Your task to perform on an android device: open app "Reddit" (install if not already installed) Image 0: 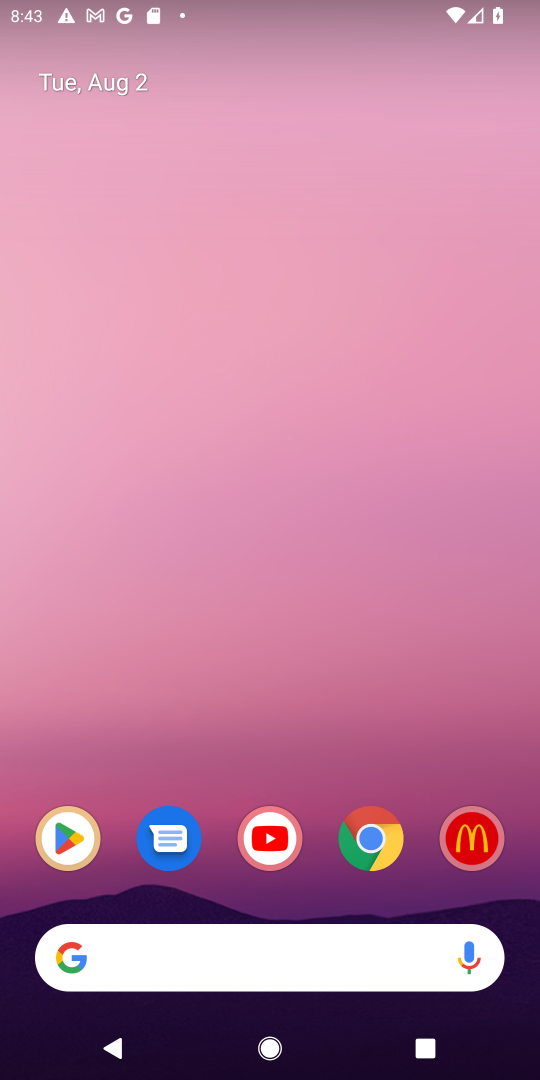
Step 0: press home button
Your task to perform on an android device: open app "Reddit" (install if not already installed) Image 1: 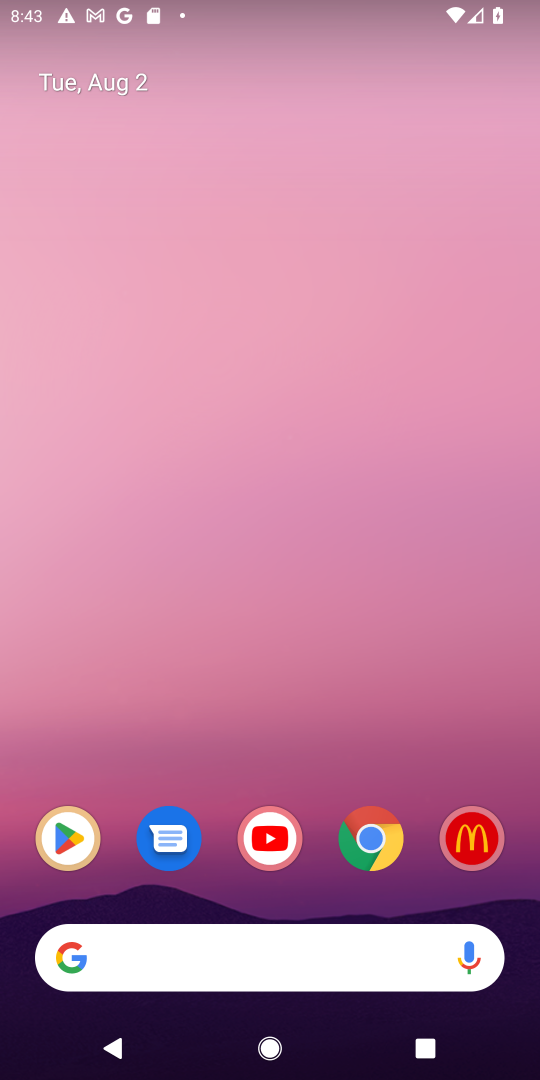
Step 1: drag from (302, 734) to (290, 32)
Your task to perform on an android device: open app "Reddit" (install if not already installed) Image 2: 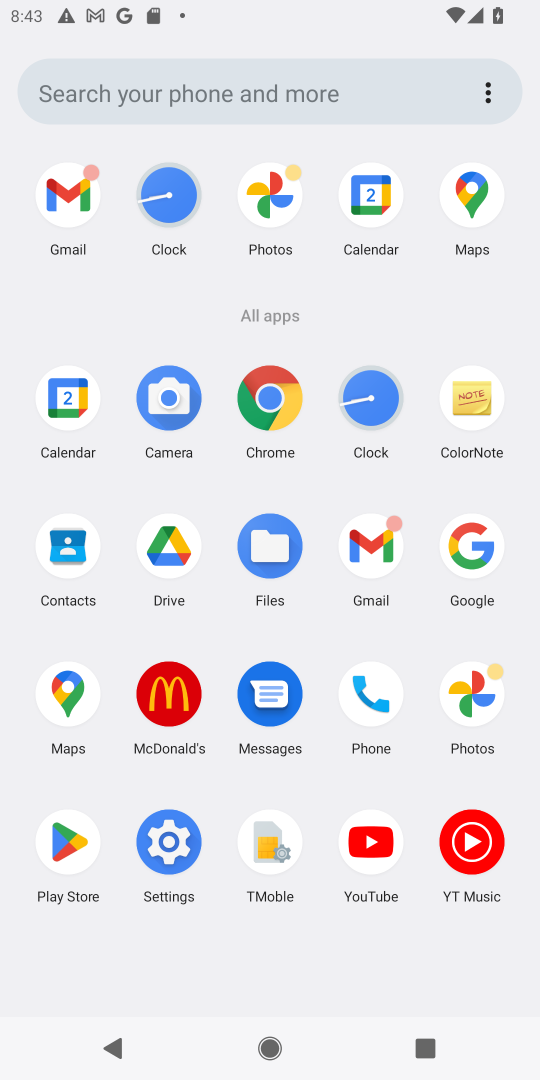
Step 2: click (67, 850)
Your task to perform on an android device: open app "Reddit" (install if not already installed) Image 3: 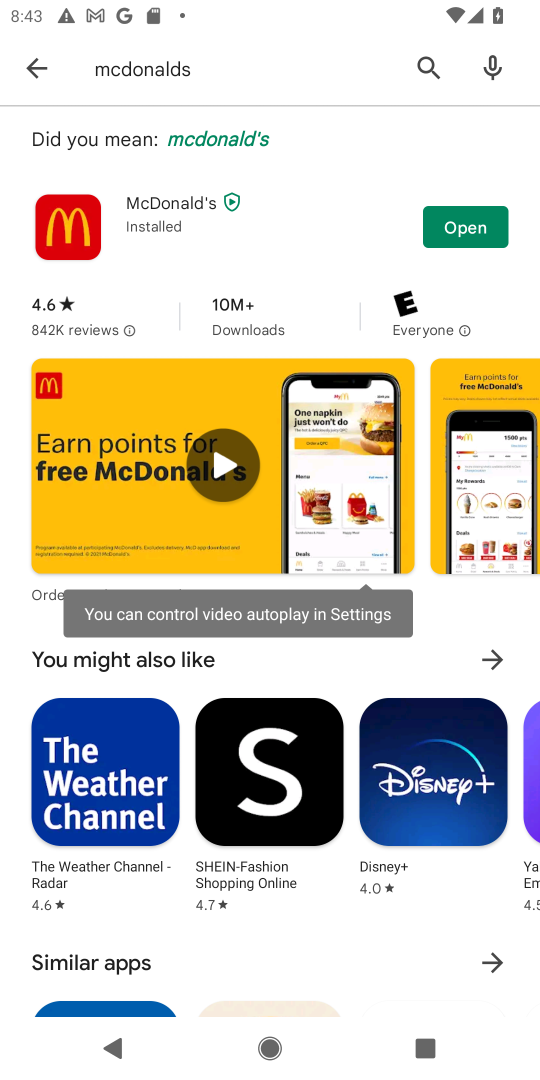
Step 3: click (423, 62)
Your task to perform on an android device: open app "Reddit" (install if not already installed) Image 4: 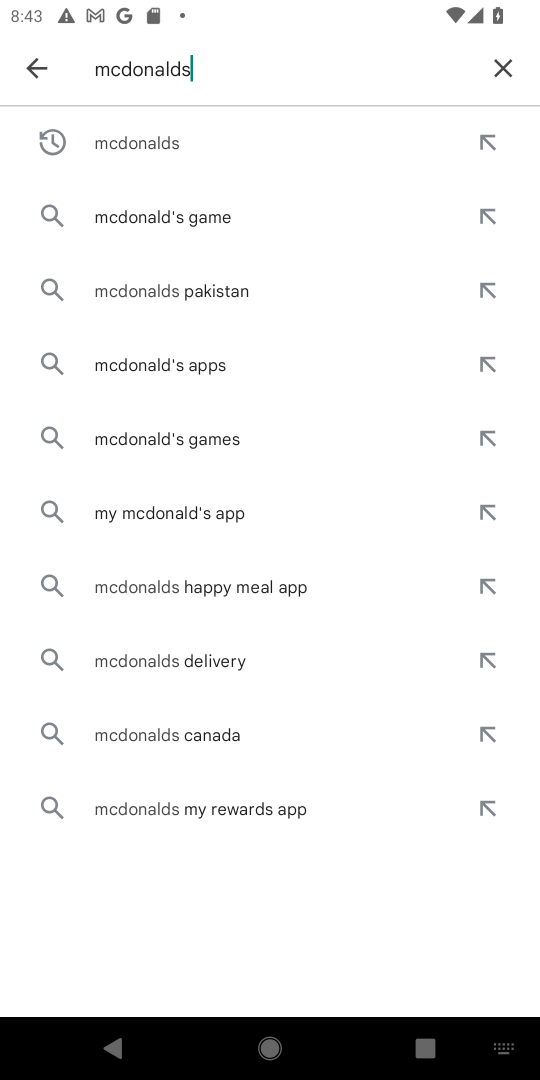
Step 4: click (512, 70)
Your task to perform on an android device: open app "Reddit" (install if not already installed) Image 5: 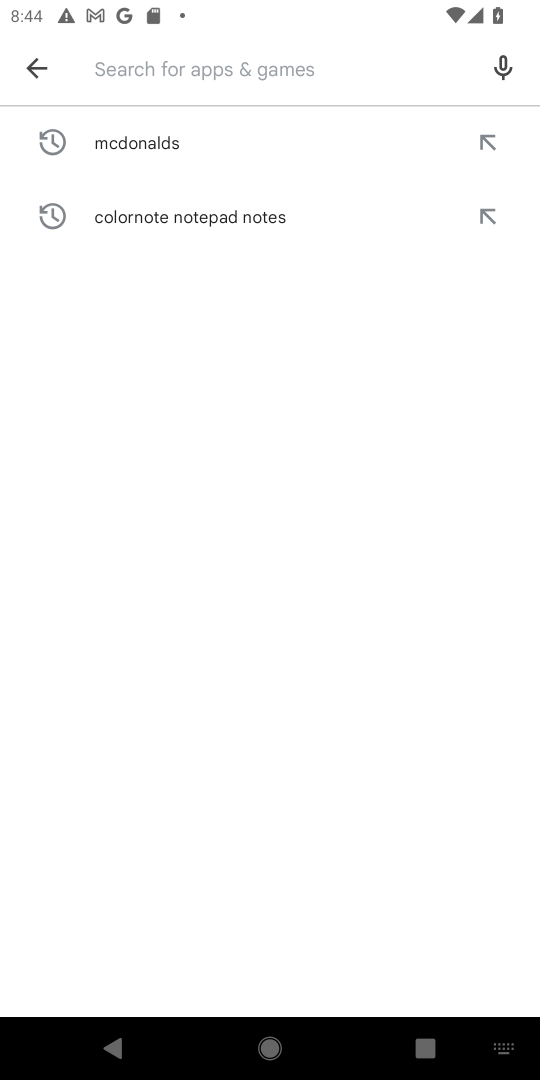
Step 5: type "reddit"
Your task to perform on an android device: open app "Reddit" (install if not already installed) Image 6: 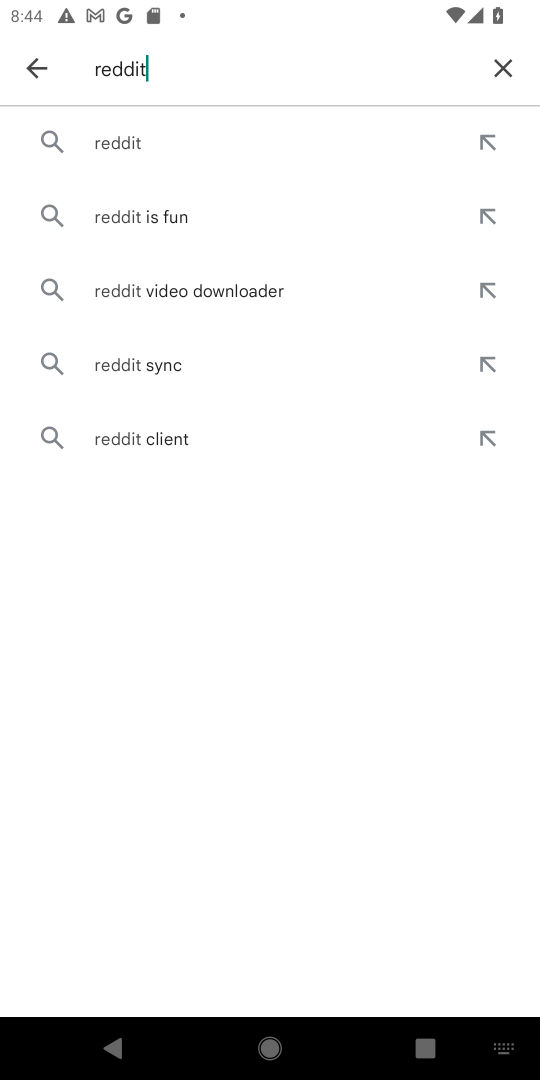
Step 6: click (211, 145)
Your task to perform on an android device: open app "Reddit" (install if not already installed) Image 7: 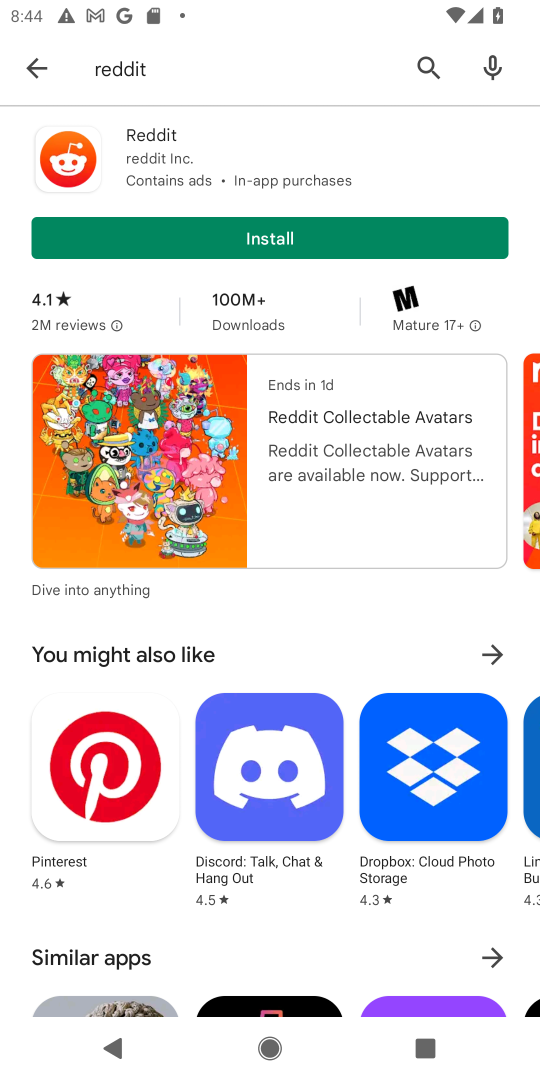
Step 7: click (272, 246)
Your task to perform on an android device: open app "Reddit" (install if not already installed) Image 8: 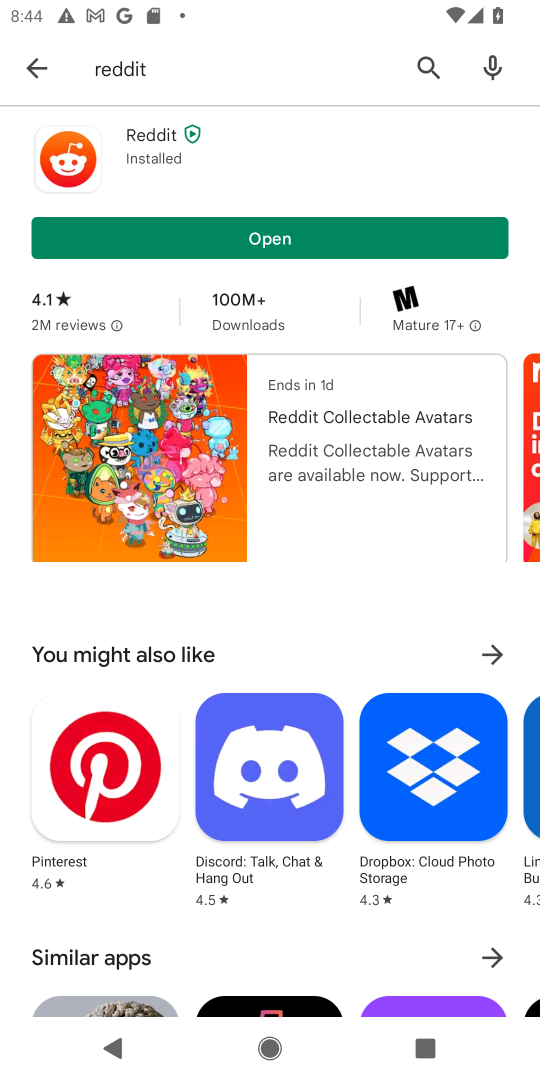
Step 8: click (470, 238)
Your task to perform on an android device: open app "Reddit" (install if not already installed) Image 9: 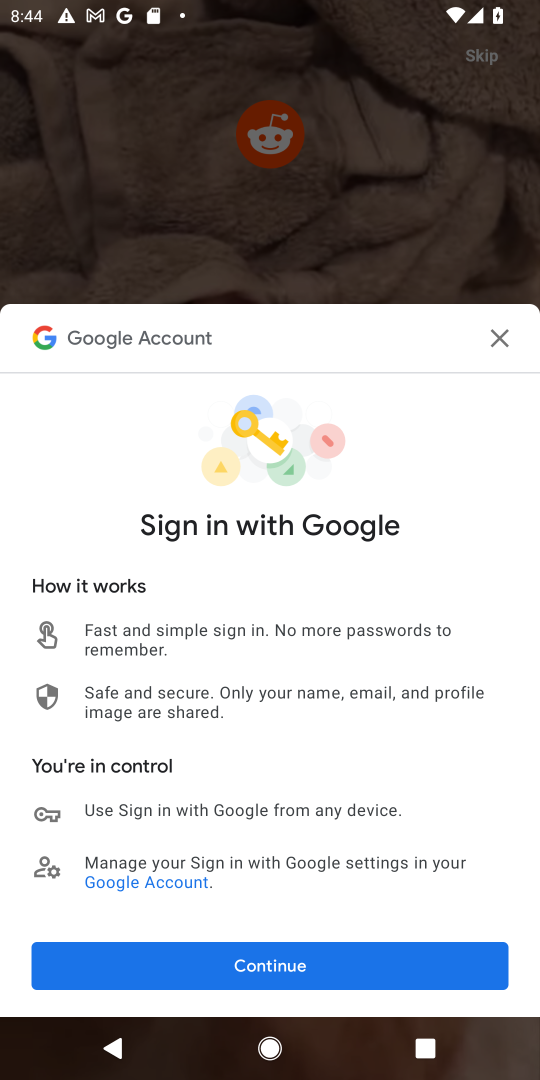
Step 9: task complete